Your task to perform on an android device: turn notification dots on Image 0: 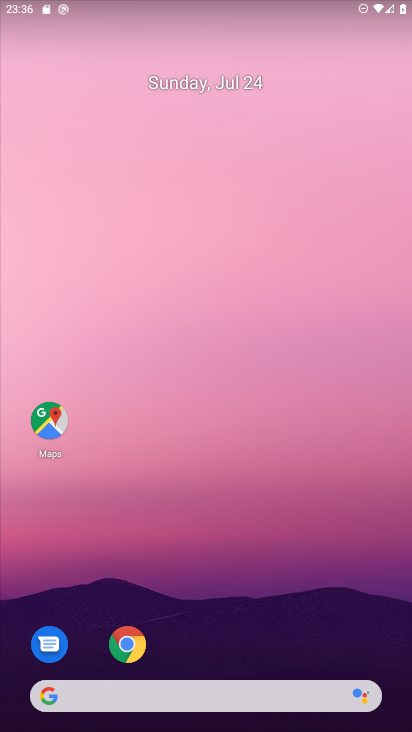
Step 0: drag from (382, 657) to (243, 58)
Your task to perform on an android device: turn notification dots on Image 1: 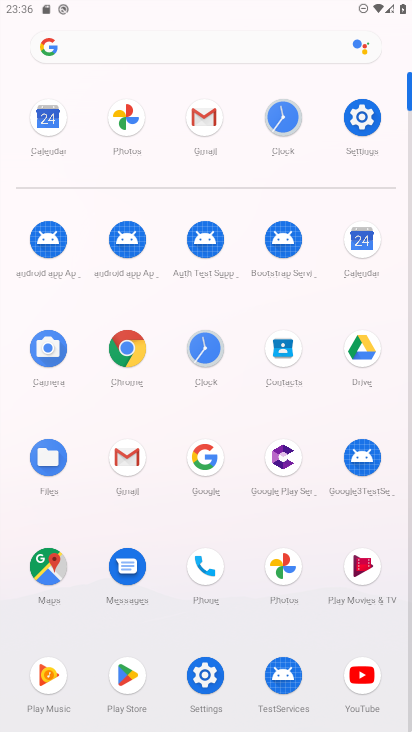
Step 1: click (206, 674)
Your task to perform on an android device: turn notification dots on Image 2: 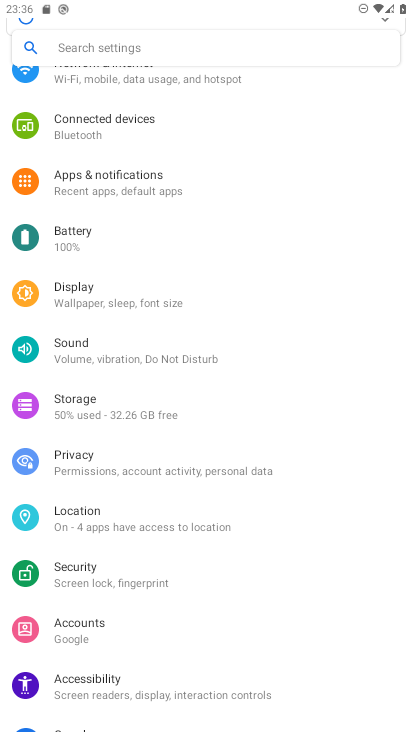
Step 2: click (82, 177)
Your task to perform on an android device: turn notification dots on Image 3: 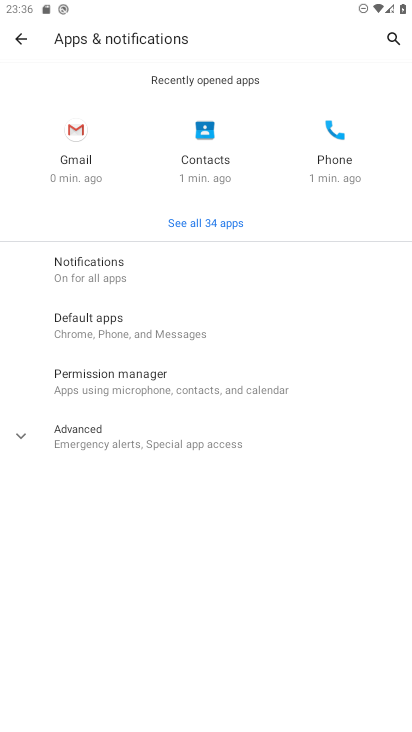
Step 3: click (12, 432)
Your task to perform on an android device: turn notification dots on Image 4: 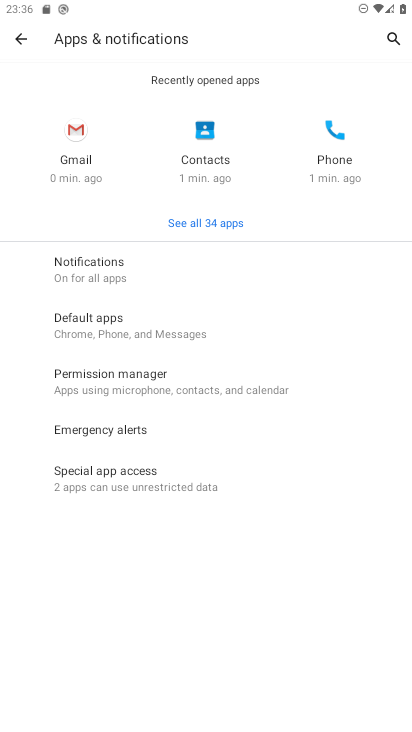
Step 4: click (99, 251)
Your task to perform on an android device: turn notification dots on Image 5: 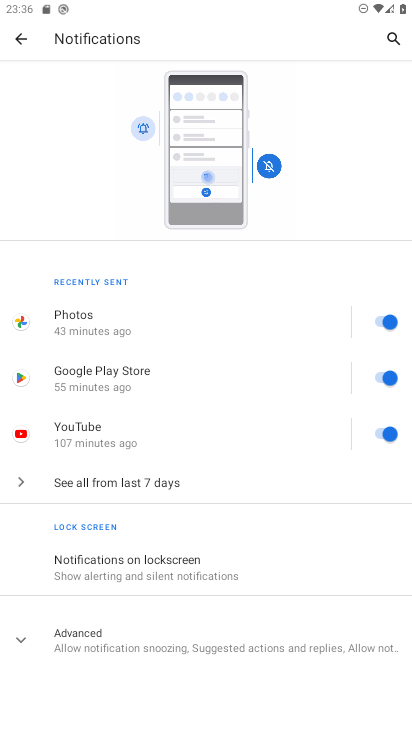
Step 5: drag from (268, 593) to (262, 311)
Your task to perform on an android device: turn notification dots on Image 6: 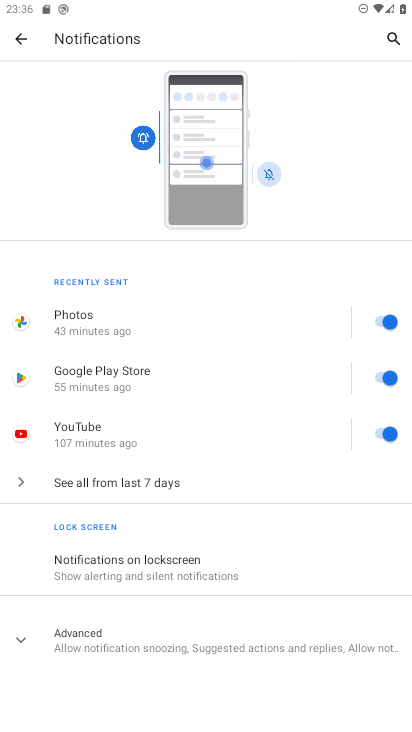
Step 6: click (24, 641)
Your task to perform on an android device: turn notification dots on Image 7: 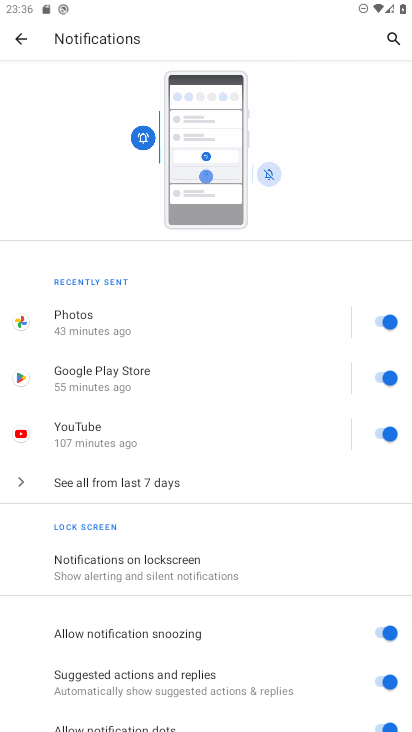
Step 7: task complete